Your task to perform on an android device: Is it going to rain tomorrow? Image 0: 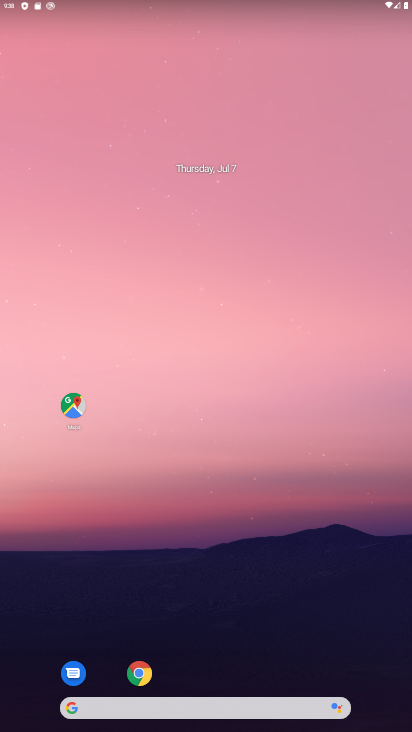
Step 0: click (137, 666)
Your task to perform on an android device: Is it going to rain tomorrow? Image 1: 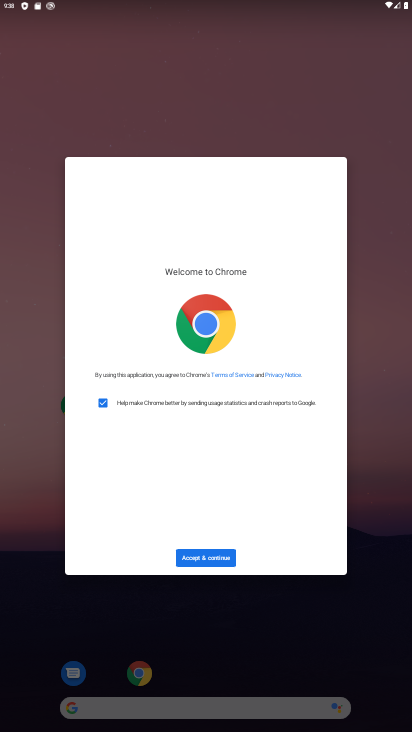
Step 1: click (221, 550)
Your task to perform on an android device: Is it going to rain tomorrow? Image 2: 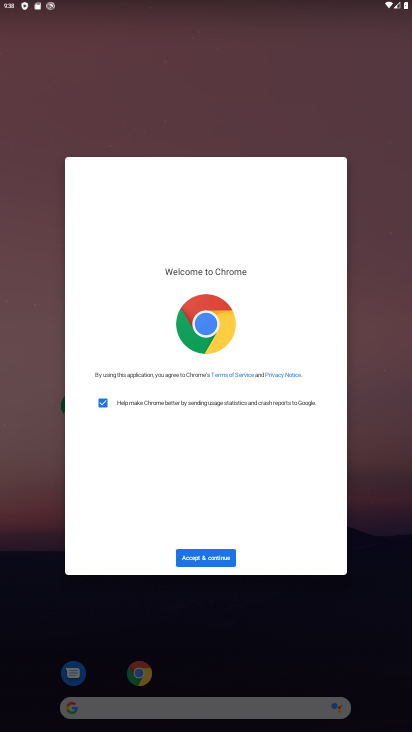
Step 2: click (219, 552)
Your task to perform on an android device: Is it going to rain tomorrow? Image 3: 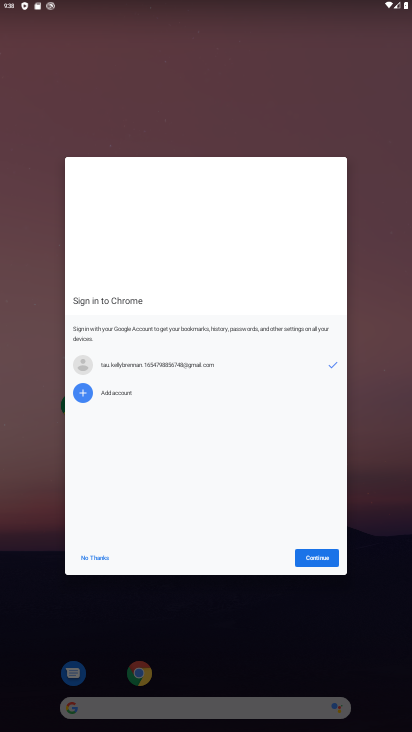
Step 3: click (316, 564)
Your task to perform on an android device: Is it going to rain tomorrow? Image 4: 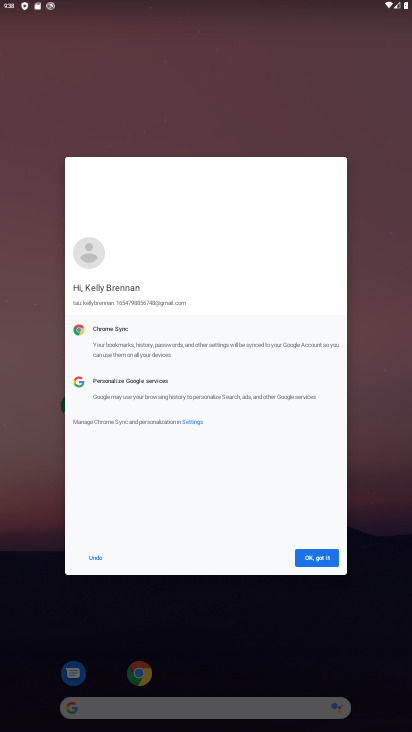
Step 4: click (316, 564)
Your task to perform on an android device: Is it going to rain tomorrow? Image 5: 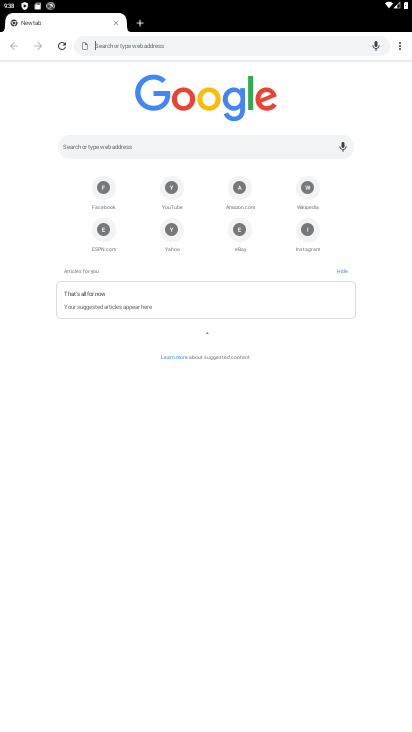
Step 5: click (194, 143)
Your task to perform on an android device: Is it going to rain tomorrow? Image 6: 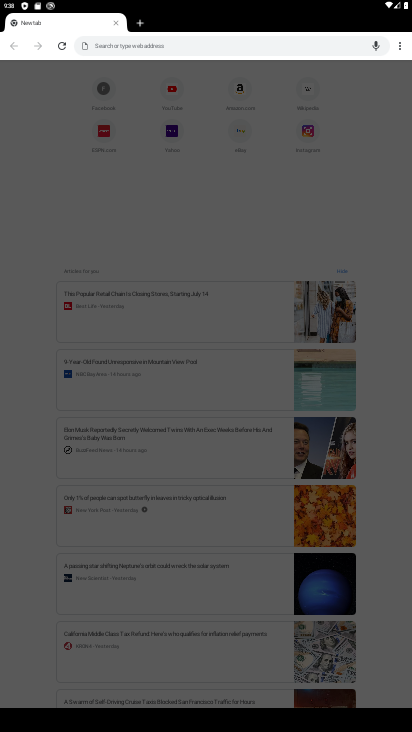
Step 6: type "Is it going to rain tomorrow?"
Your task to perform on an android device: Is it going to rain tomorrow? Image 7: 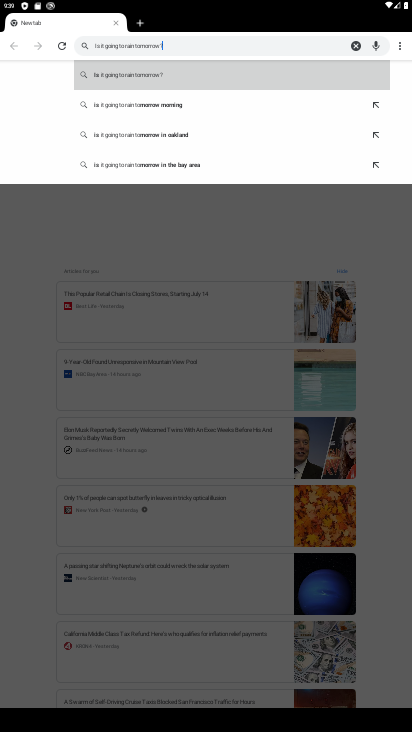
Step 7: click (137, 72)
Your task to perform on an android device: Is it going to rain tomorrow? Image 8: 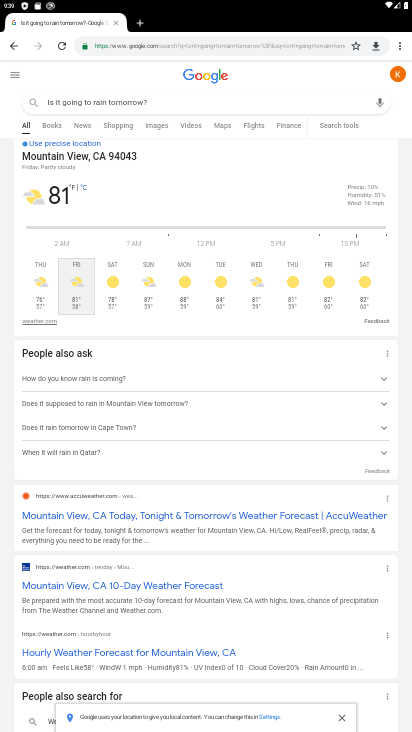
Step 8: task complete